Your task to perform on an android device: see tabs open on other devices in the chrome app Image 0: 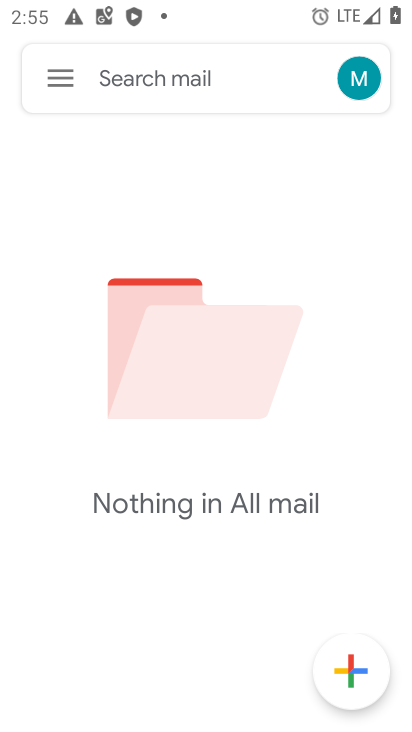
Step 0: press home button
Your task to perform on an android device: see tabs open on other devices in the chrome app Image 1: 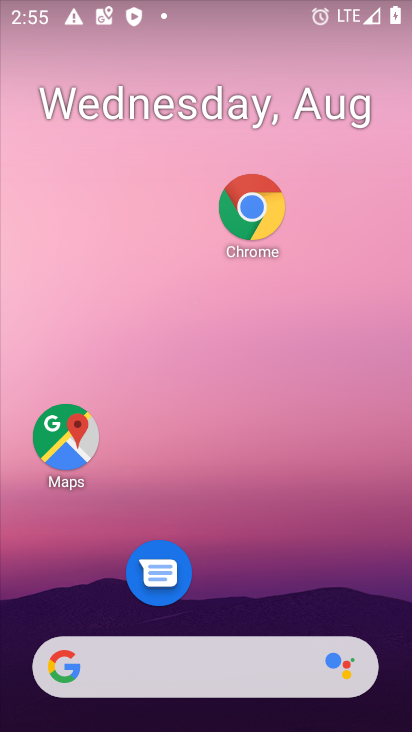
Step 1: drag from (221, 667) to (258, 207)
Your task to perform on an android device: see tabs open on other devices in the chrome app Image 2: 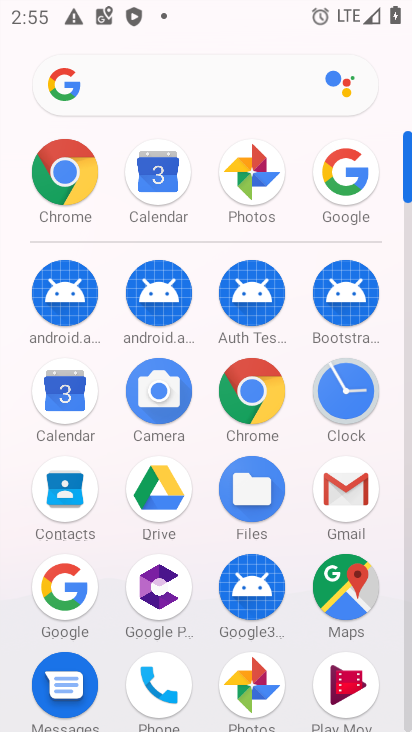
Step 2: click (251, 410)
Your task to perform on an android device: see tabs open on other devices in the chrome app Image 3: 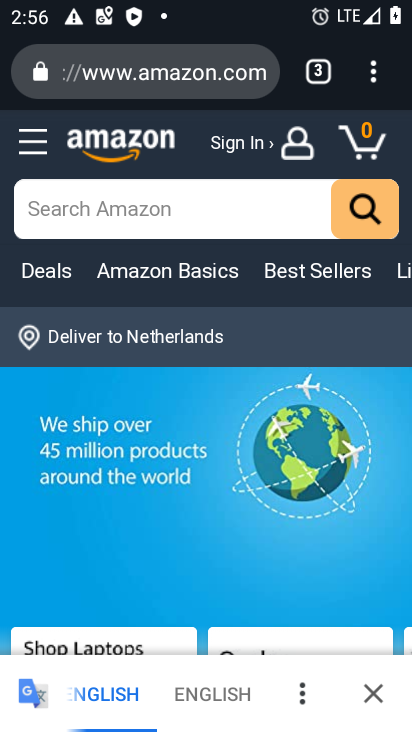
Step 3: task complete